Your task to perform on an android device: refresh tabs in the chrome app Image 0: 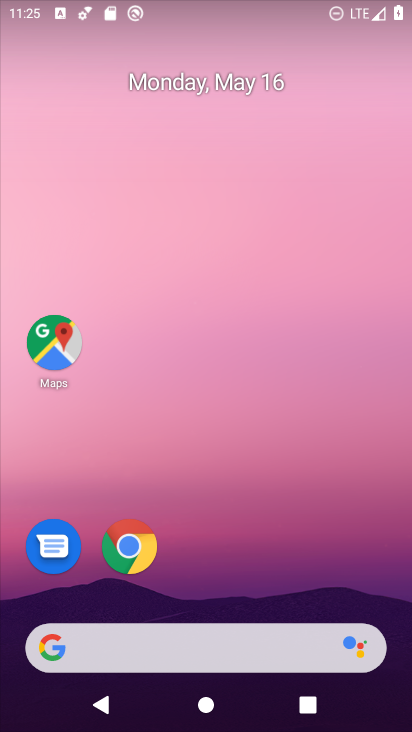
Step 0: click (125, 578)
Your task to perform on an android device: refresh tabs in the chrome app Image 1: 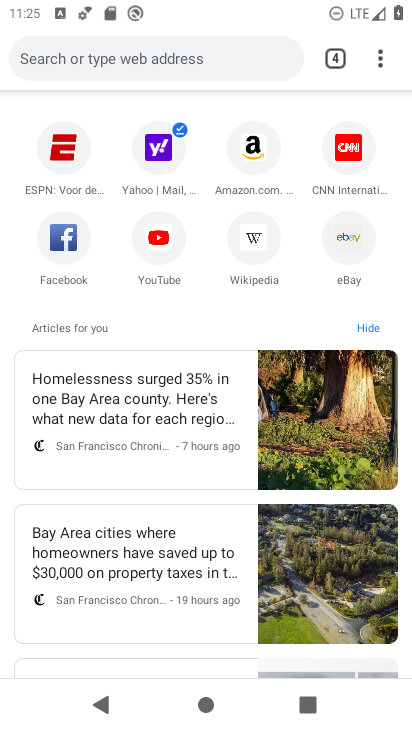
Step 1: click (370, 49)
Your task to perform on an android device: refresh tabs in the chrome app Image 2: 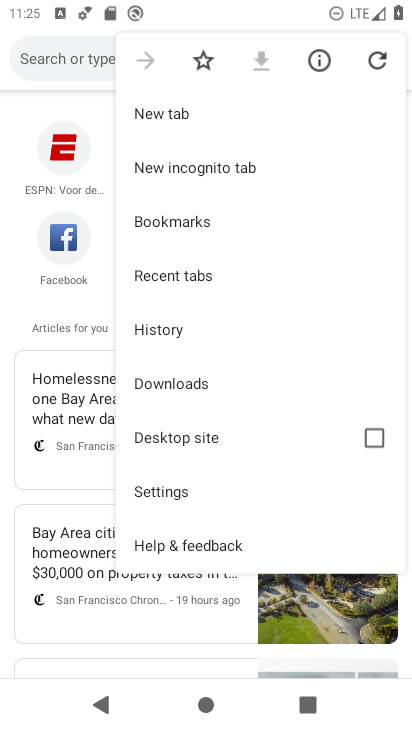
Step 2: click (379, 61)
Your task to perform on an android device: refresh tabs in the chrome app Image 3: 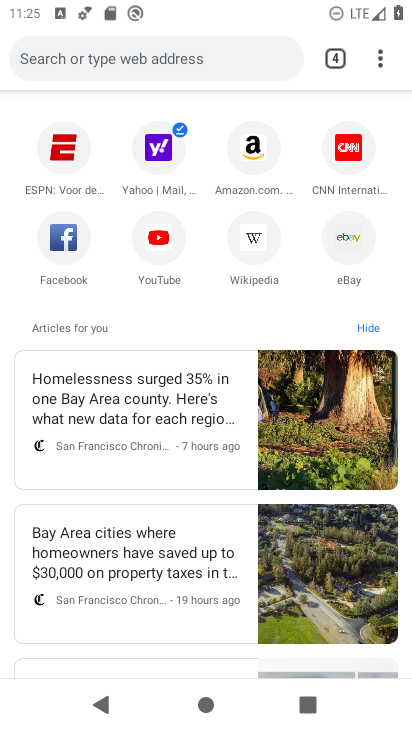
Step 3: task complete